Your task to perform on an android device: add a contact in the contacts app Image 0: 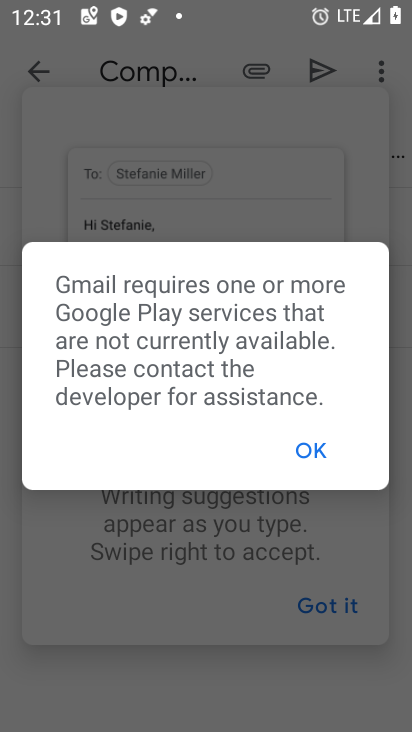
Step 0: press home button
Your task to perform on an android device: add a contact in the contacts app Image 1: 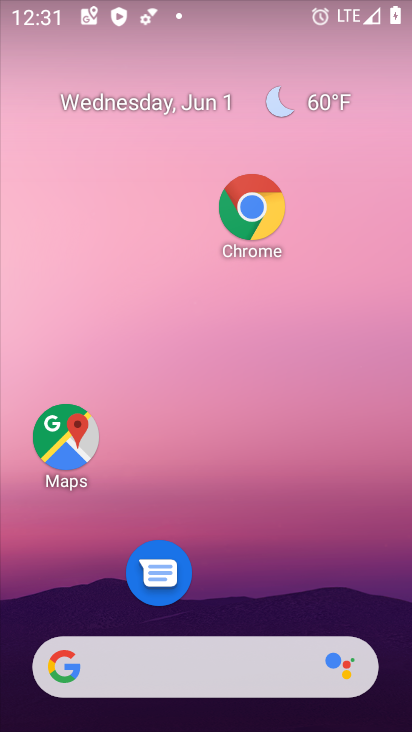
Step 1: drag from (232, 583) to (199, 119)
Your task to perform on an android device: add a contact in the contacts app Image 2: 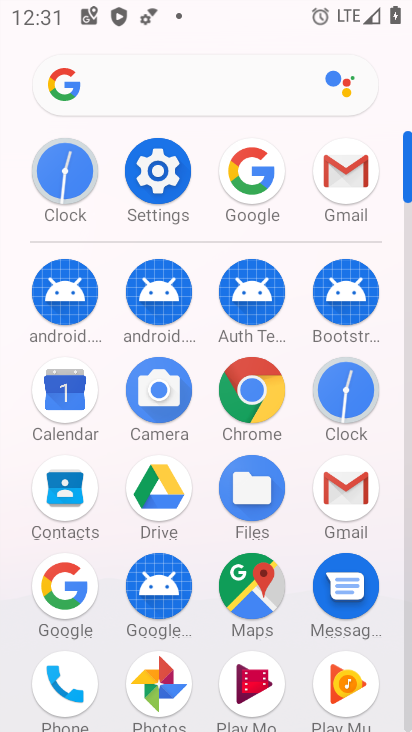
Step 2: click (64, 486)
Your task to perform on an android device: add a contact in the contacts app Image 3: 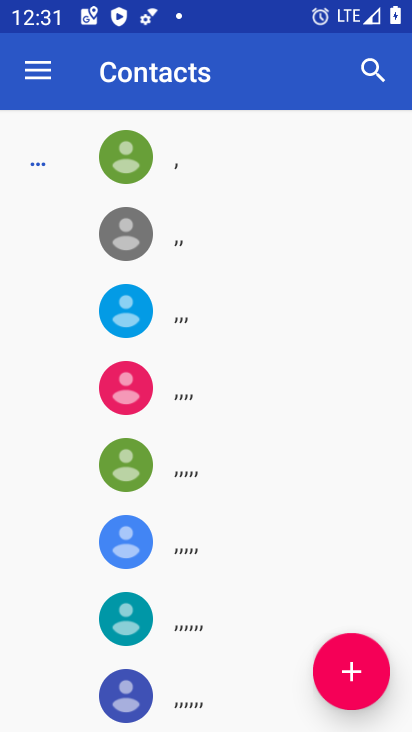
Step 3: click (339, 652)
Your task to perform on an android device: add a contact in the contacts app Image 4: 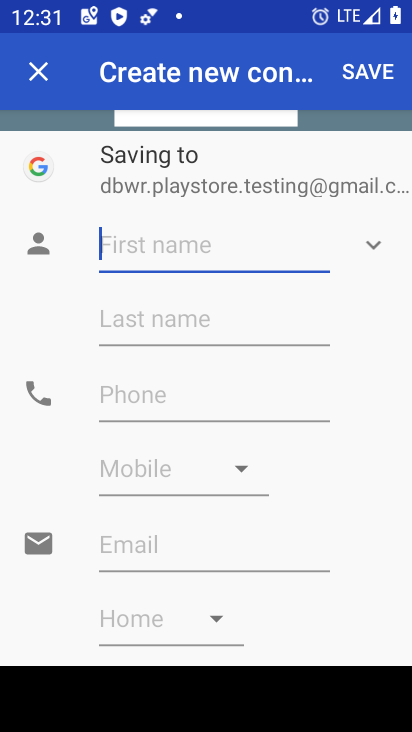
Step 4: type "cfbfcb"
Your task to perform on an android device: add a contact in the contacts app Image 5: 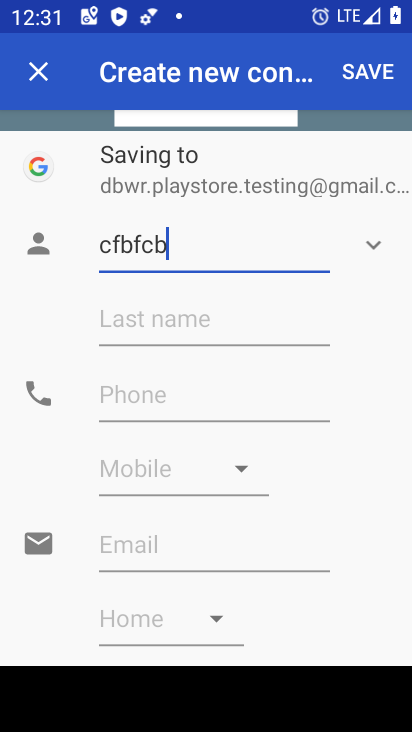
Step 5: click (154, 402)
Your task to perform on an android device: add a contact in the contacts app Image 6: 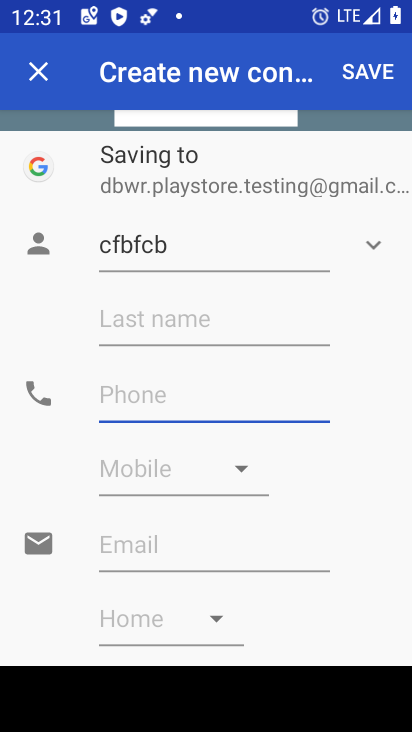
Step 6: type "96797686575"
Your task to perform on an android device: add a contact in the contacts app Image 7: 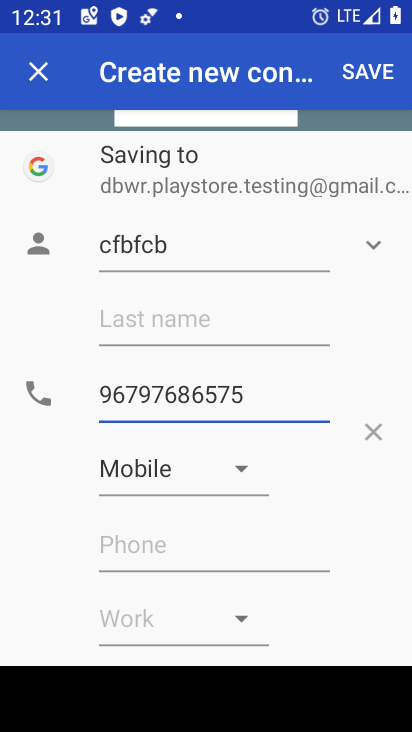
Step 7: click (367, 70)
Your task to perform on an android device: add a contact in the contacts app Image 8: 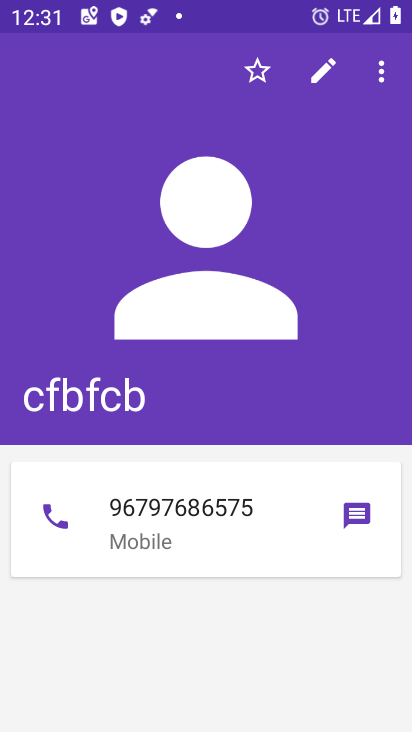
Step 8: task complete